Your task to perform on an android device: Go to Maps Image 0: 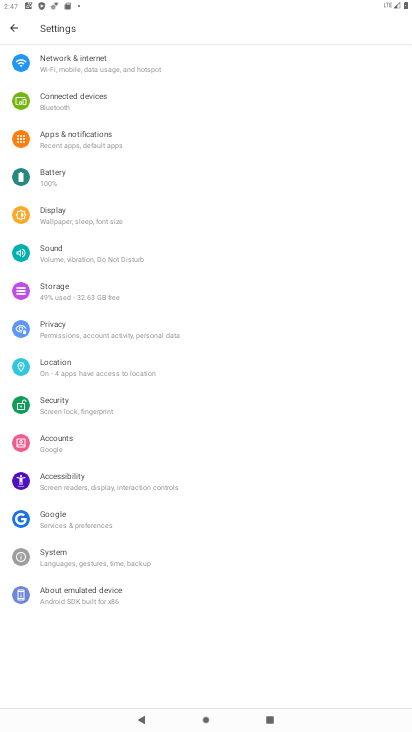
Step 0: press home button
Your task to perform on an android device: Go to Maps Image 1: 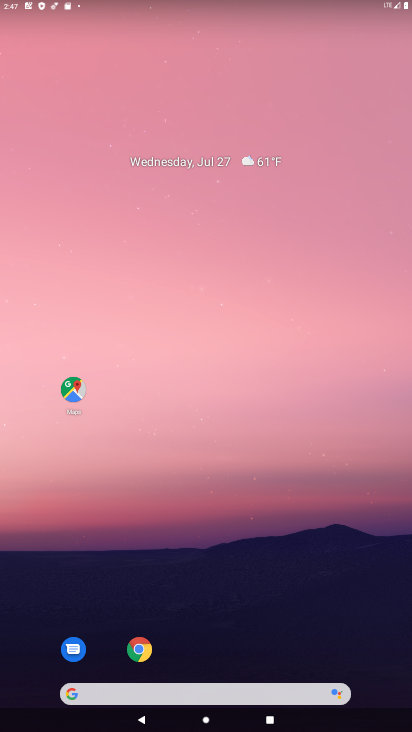
Step 1: drag from (186, 657) to (180, 215)
Your task to perform on an android device: Go to Maps Image 2: 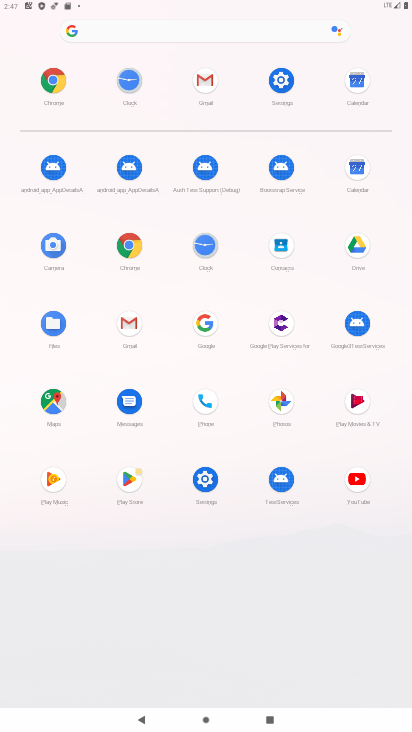
Step 2: click (55, 412)
Your task to perform on an android device: Go to Maps Image 3: 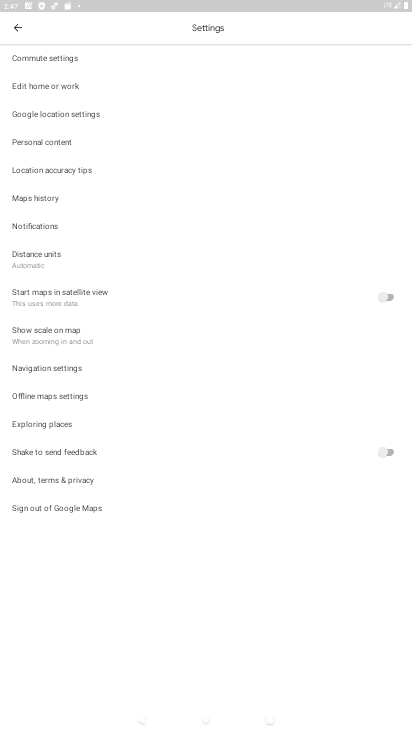
Step 3: task complete